Your task to perform on an android device: change your default location settings in chrome Image 0: 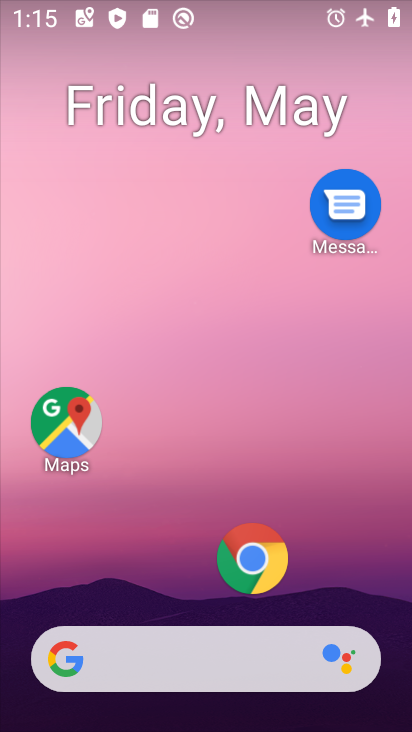
Step 0: click (235, 574)
Your task to perform on an android device: change your default location settings in chrome Image 1: 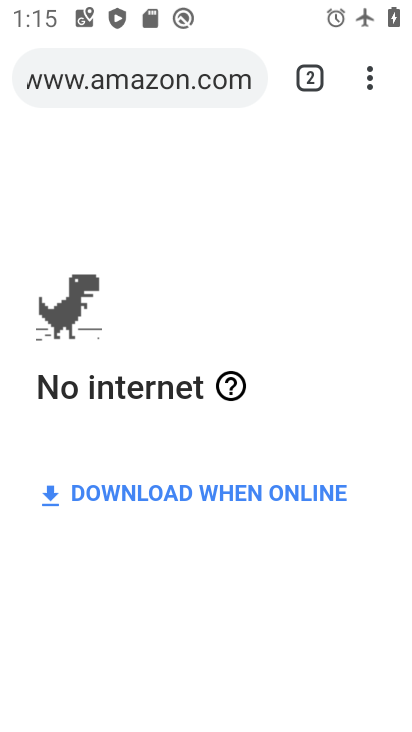
Step 1: click (370, 82)
Your task to perform on an android device: change your default location settings in chrome Image 2: 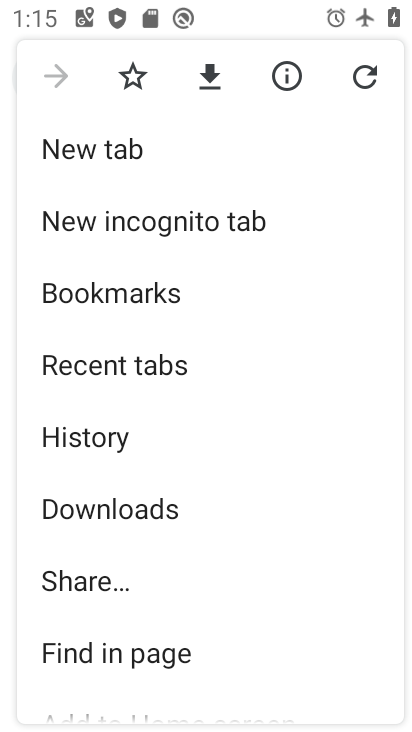
Step 2: drag from (154, 495) to (184, 422)
Your task to perform on an android device: change your default location settings in chrome Image 3: 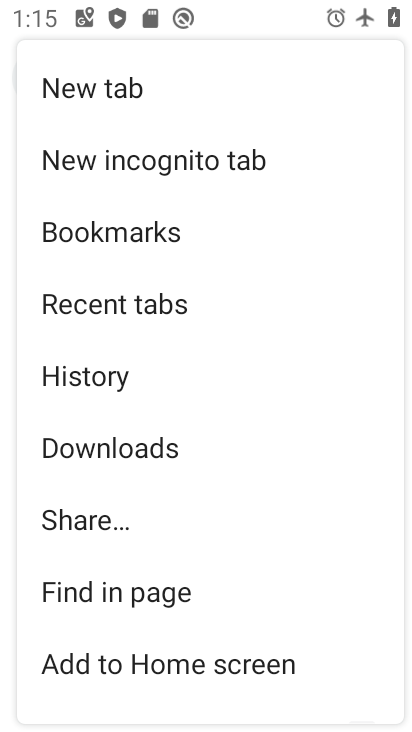
Step 3: drag from (141, 523) to (165, 456)
Your task to perform on an android device: change your default location settings in chrome Image 4: 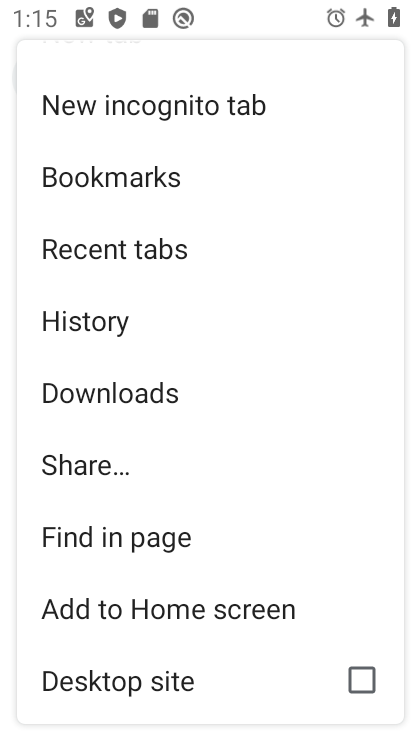
Step 4: drag from (128, 581) to (203, 375)
Your task to perform on an android device: change your default location settings in chrome Image 5: 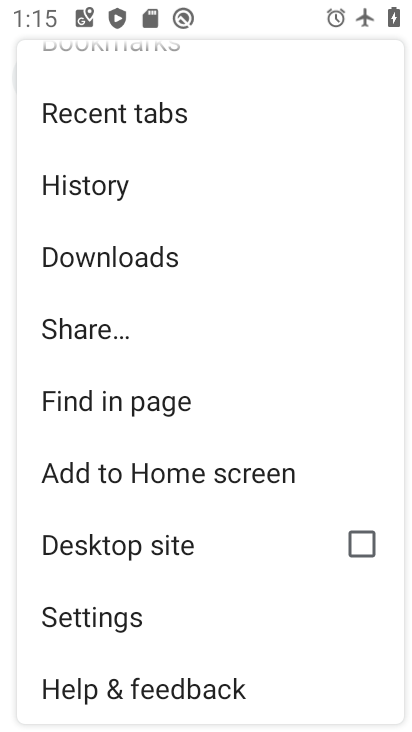
Step 5: click (118, 619)
Your task to perform on an android device: change your default location settings in chrome Image 6: 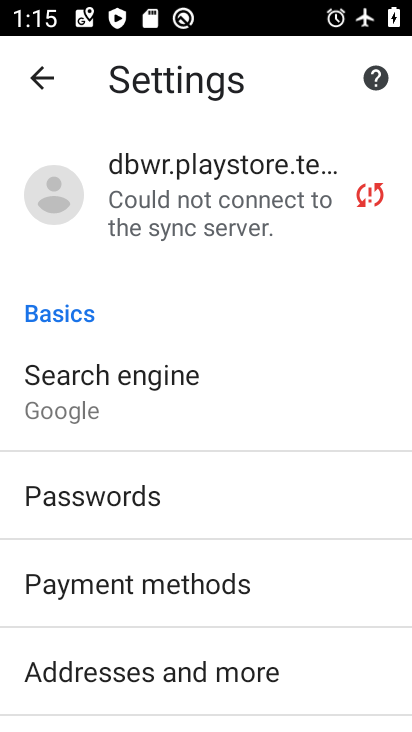
Step 6: drag from (118, 619) to (177, 492)
Your task to perform on an android device: change your default location settings in chrome Image 7: 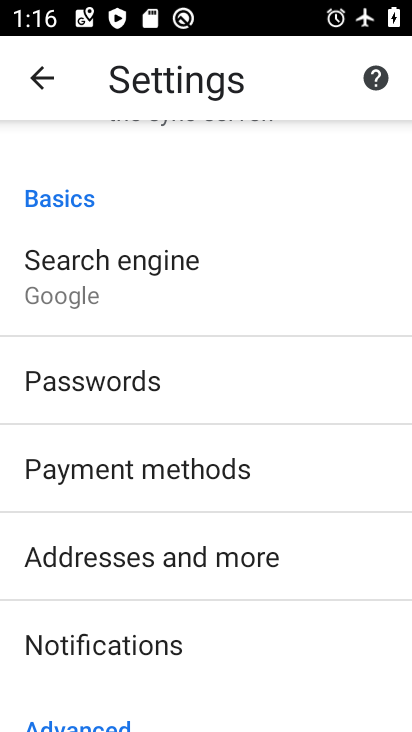
Step 7: drag from (158, 566) to (189, 479)
Your task to perform on an android device: change your default location settings in chrome Image 8: 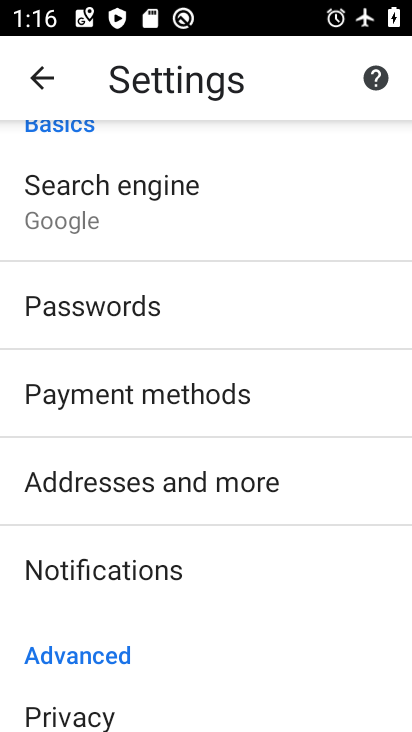
Step 8: drag from (154, 605) to (198, 460)
Your task to perform on an android device: change your default location settings in chrome Image 9: 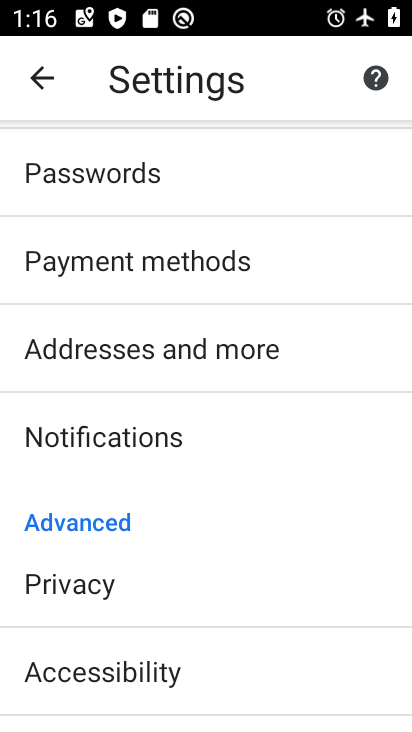
Step 9: drag from (144, 635) to (199, 499)
Your task to perform on an android device: change your default location settings in chrome Image 10: 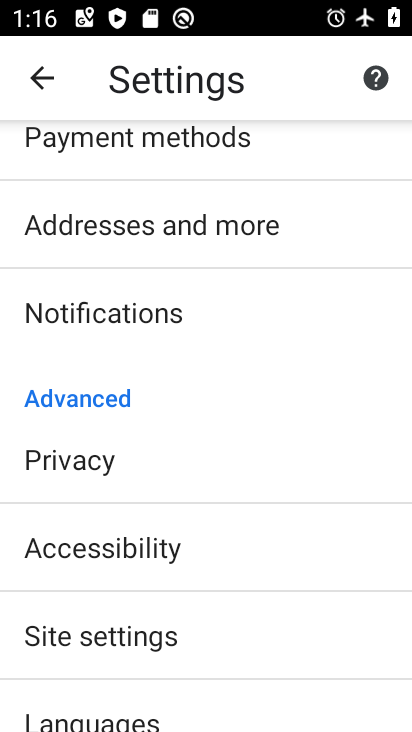
Step 10: drag from (149, 617) to (185, 504)
Your task to perform on an android device: change your default location settings in chrome Image 11: 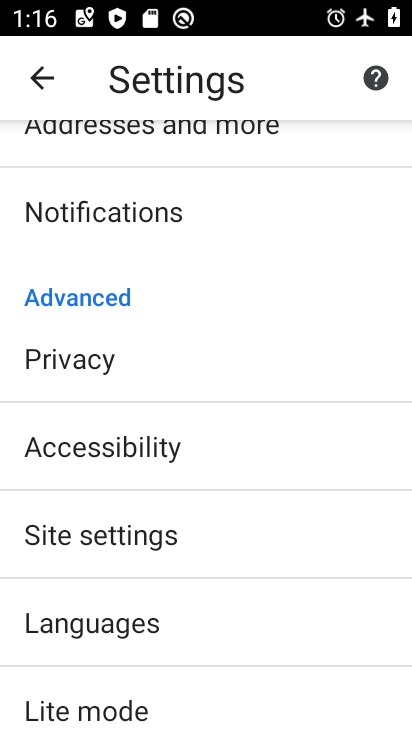
Step 11: click (169, 538)
Your task to perform on an android device: change your default location settings in chrome Image 12: 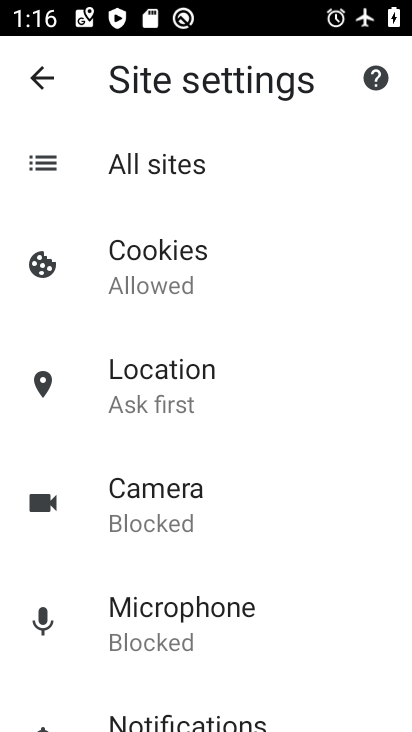
Step 12: click (183, 389)
Your task to perform on an android device: change your default location settings in chrome Image 13: 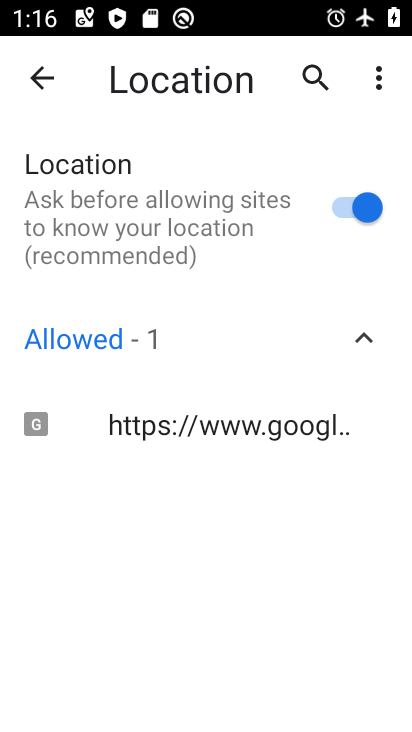
Step 13: click (368, 201)
Your task to perform on an android device: change your default location settings in chrome Image 14: 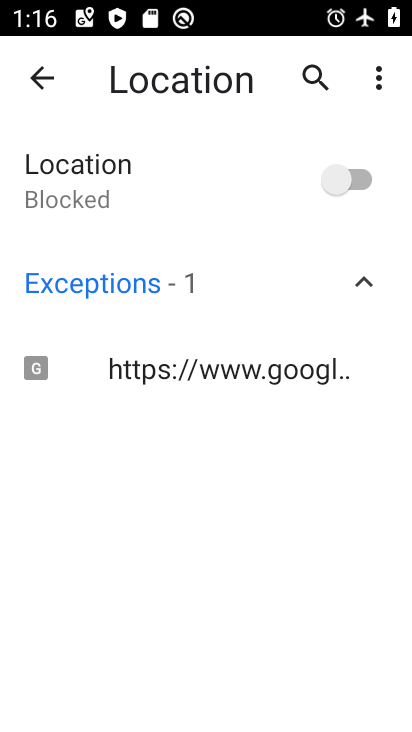
Step 14: task complete